Your task to perform on an android device: turn off improve location accuracy Image 0: 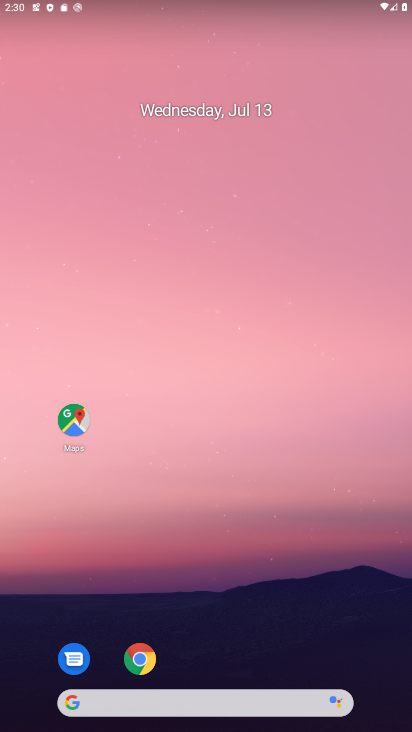
Step 0: drag from (251, 640) to (240, 238)
Your task to perform on an android device: turn off improve location accuracy Image 1: 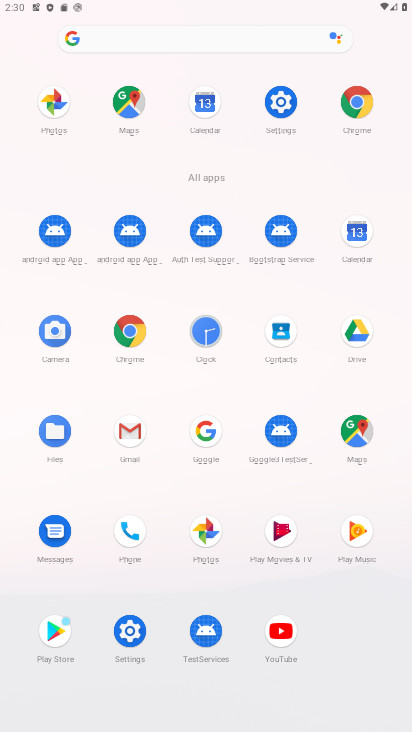
Step 1: click (285, 89)
Your task to perform on an android device: turn off improve location accuracy Image 2: 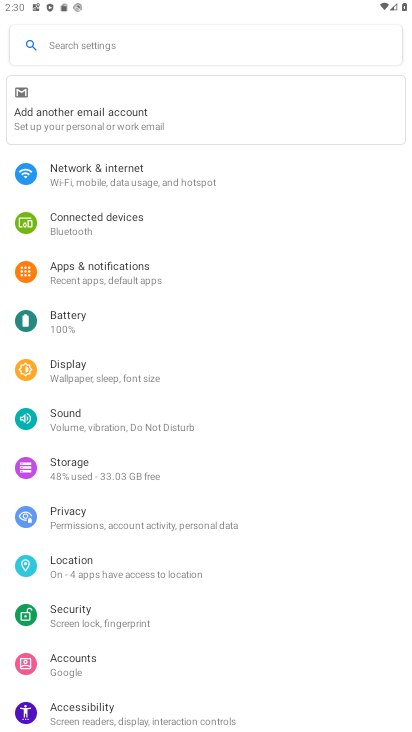
Step 2: click (109, 556)
Your task to perform on an android device: turn off improve location accuracy Image 3: 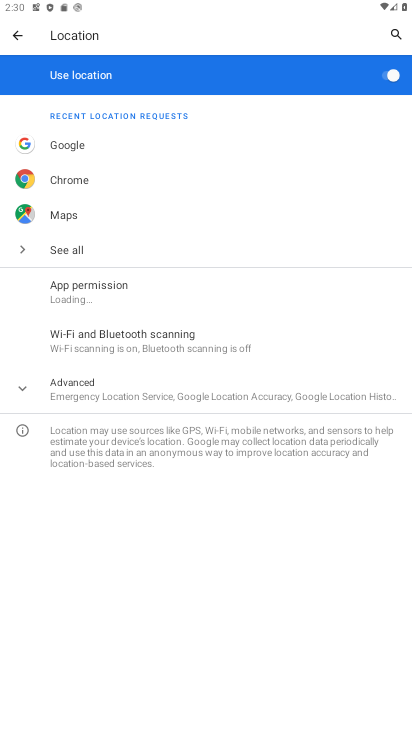
Step 3: click (121, 384)
Your task to perform on an android device: turn off improve location accuracy Image 4: 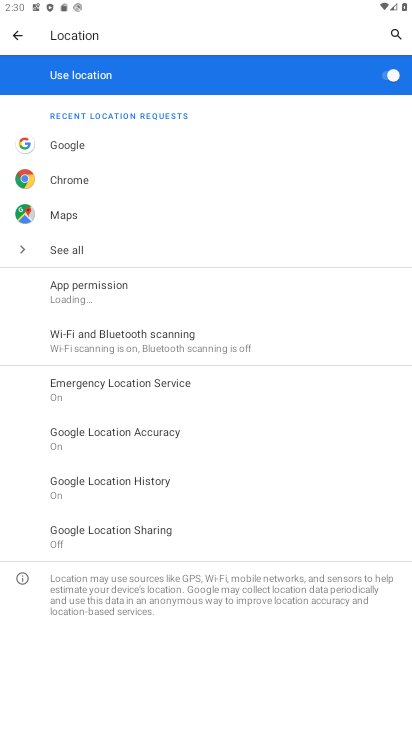
Step 4: click (97, 452)
Your task to perform on an android device: turn off improve location accuracy Image 5: 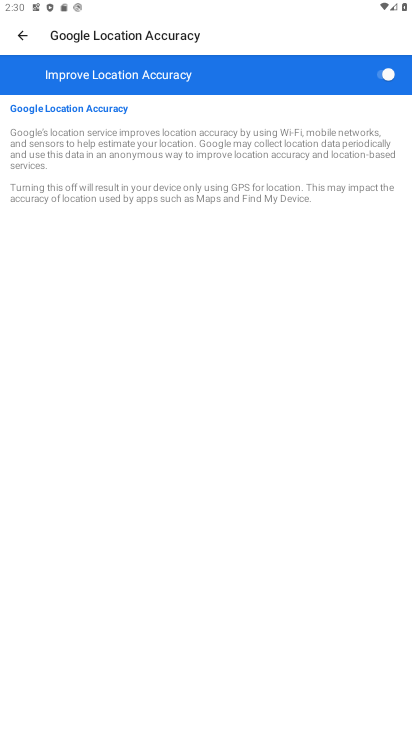
Step 5: click (374, 62)
Your task to perform on an android device: turn off improve location accuracy Image 6: 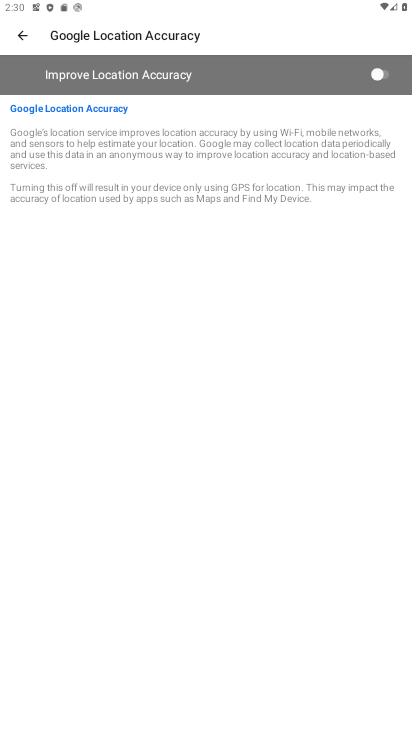
Step 6: task complete